Your task to perform on an android device: Search for Mexican restaurants on Maps Image 0: 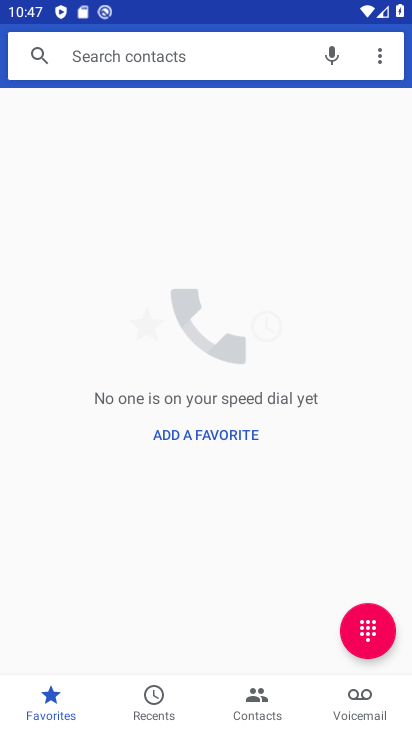
Step 0: press back button
Your task to perform on an android device: Search for Mexican restaurants on Maps Image 1: 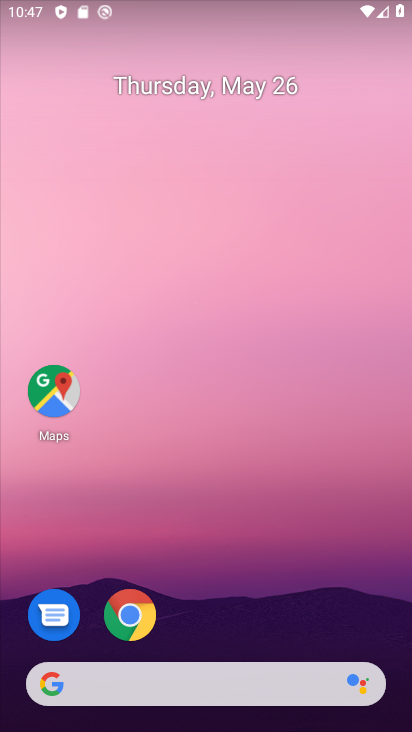
Step 1: click (50, 381)
Your task to perform on an android device: Search for Mexican restaurants on Maps Image 2: 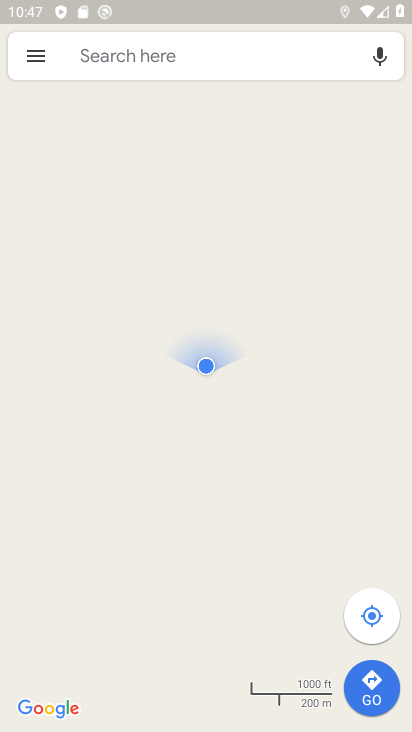
Step 2: click (170, 54)
Your task to perform on an android device: Search for Mexican restaurants on Maps Image 3: 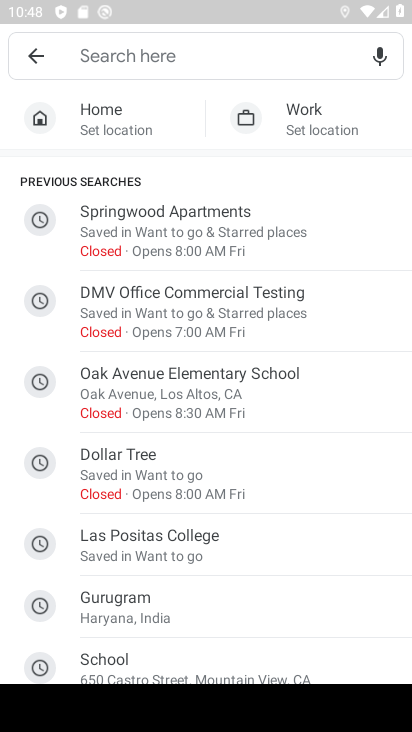
Step 3: type "mexican restraunts"
Your task to perform on an android device: Search for Mexican restaurants on Maps Image 4: 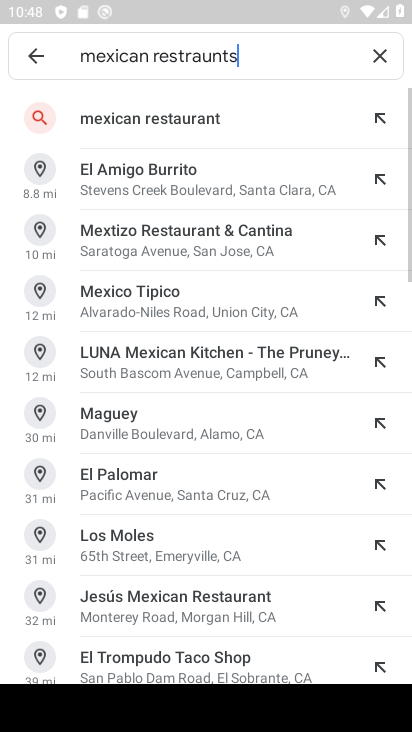
Step 4: click (174, 111)
Your task to perform on an android device: Search for Mexican restaurants on Maps Image 5: 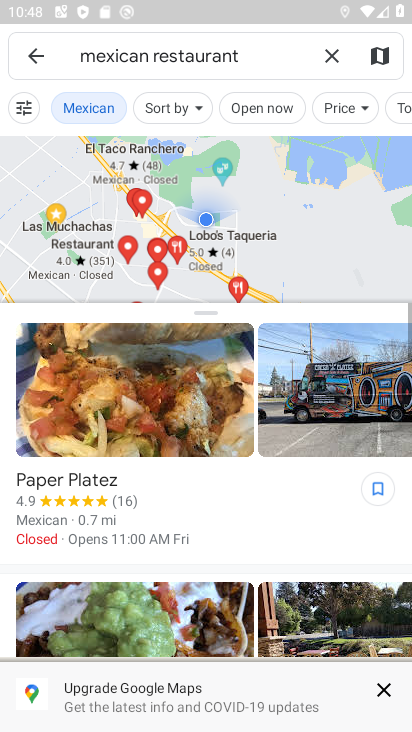
Step 5: task complete